Your task to perform on an android device: delete the emails in spam in the gmail app Image 0: 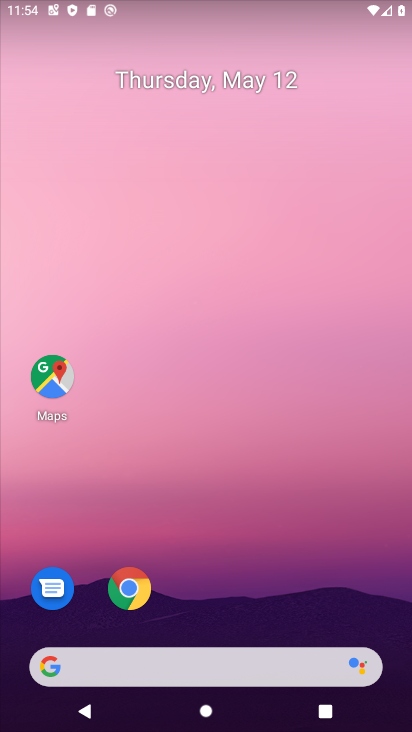
Step 0: drag from (225, 500) to (281, 77)
Your task to perform on an android device: delete the emails in spam in the gmail app Image 1: 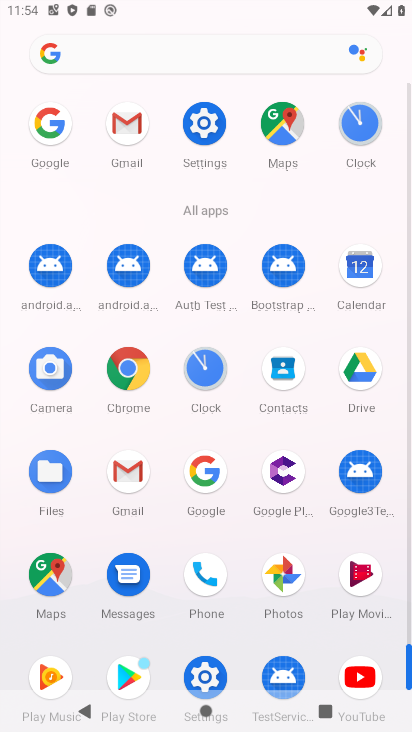
Step 1: click (131, 143)
Your task to perform on an android device: delete the emails in spam in the gmail app Image 2: 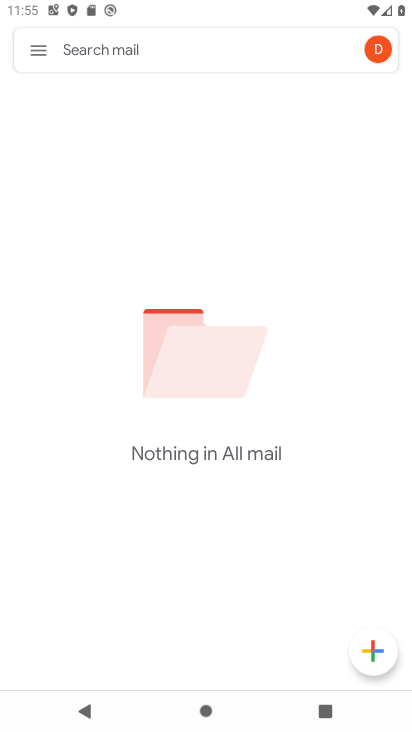
Step 2: click (31, 49)
Your task to perform on an android device: delete the emails in spam in the gmail app Image 3: 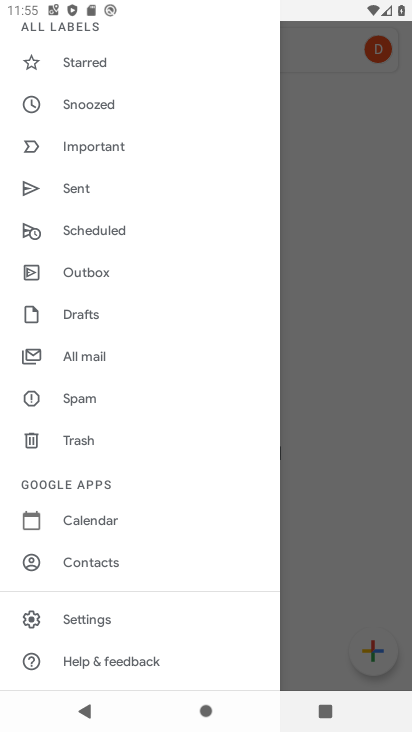
Step 3: click (92, 399)
Your task to perform on an android device: delete the emails in spam in the gmail app Image 4: 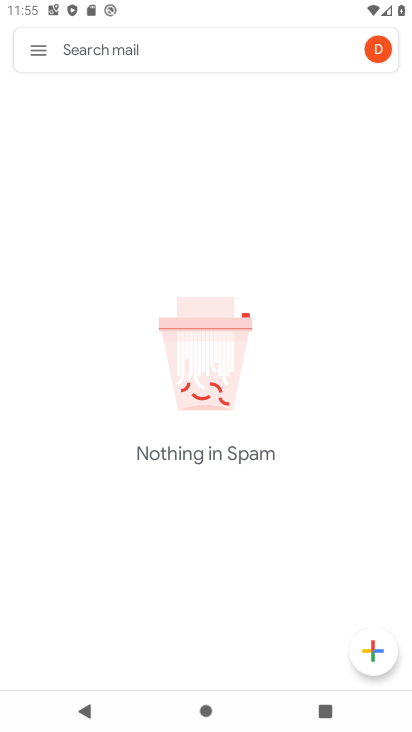
Step 4: task complete